Your task to perform on an android device: turn off airplane mode Image 0: 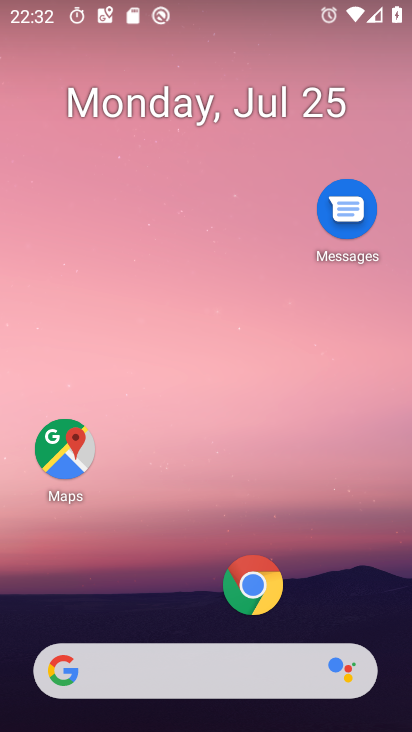
Step 0: press home button
Your task to perform on an android device: turn off airplane mode Image 1: 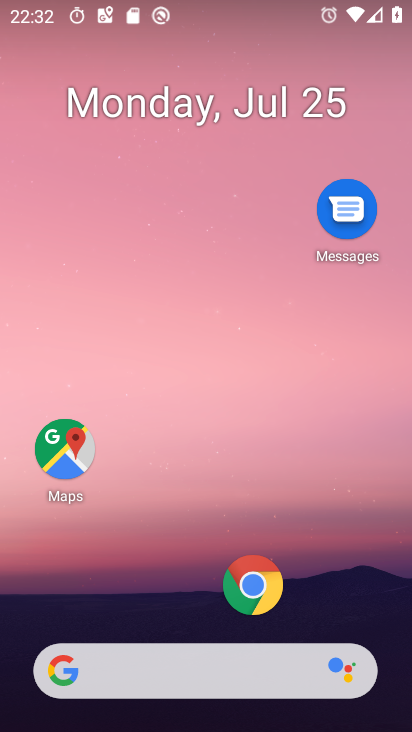
Step 1: drag from (154, 621) to (256, 51)
Your task to perform on an android device: turn off airplane mode Image 2: 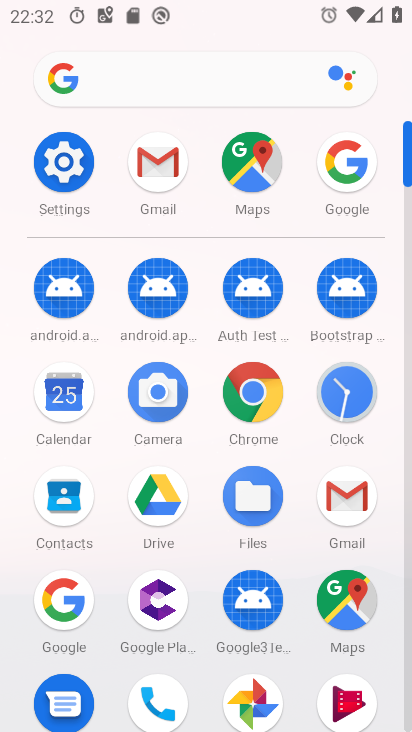
Step 2: click (55, 149)
Your task to perform on an android device: turn off airplane mode Image 3: 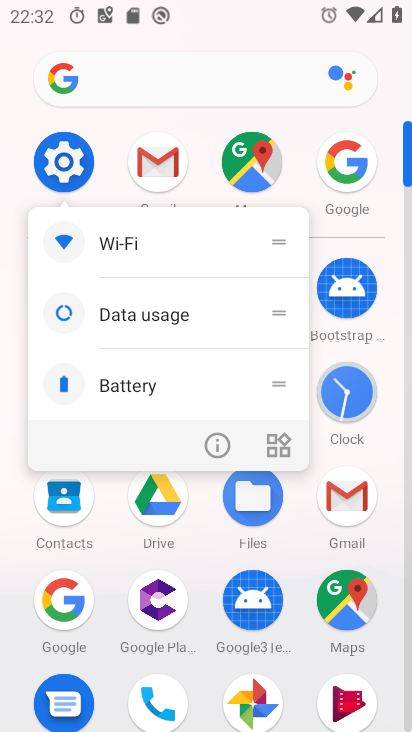
Step 3: click (46, 163)
Your task to perform on an android device: turn off airplane mode Image 4: 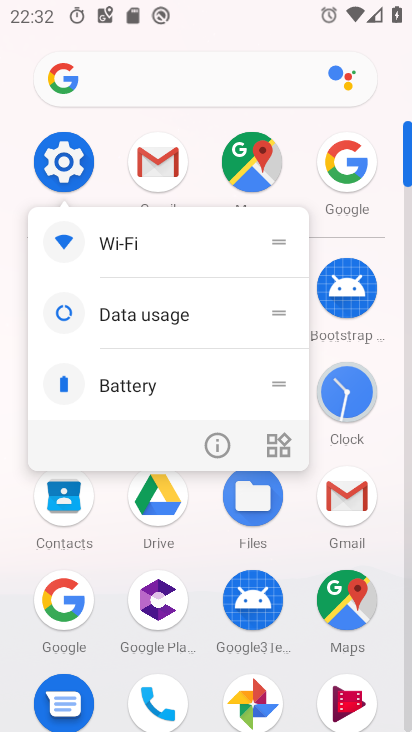
Step 4: click (61, 166)
Your task to perform on an android device: turn off airplane mode Image 5: 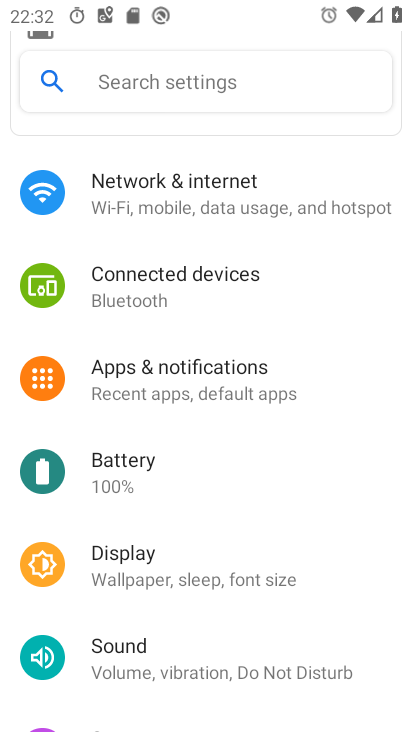
Step 5: drag from (307, 159) to (324, 530)
Your task to perform on an android device: turn off airplane mode Image 6: 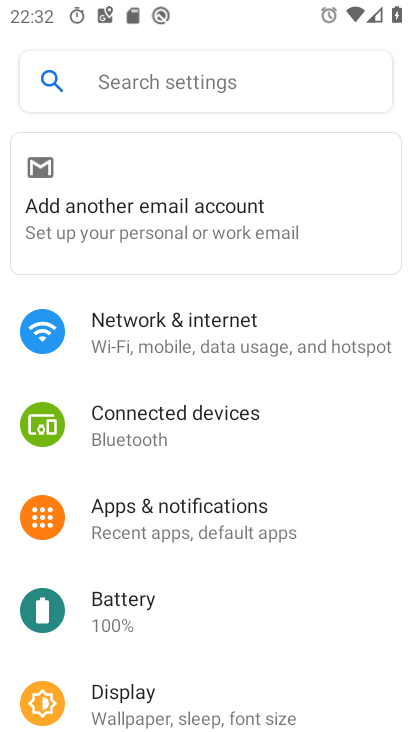
Step 6: click (211, 326)
Your task to perform on an android device: turn off airplane mode Image 7: 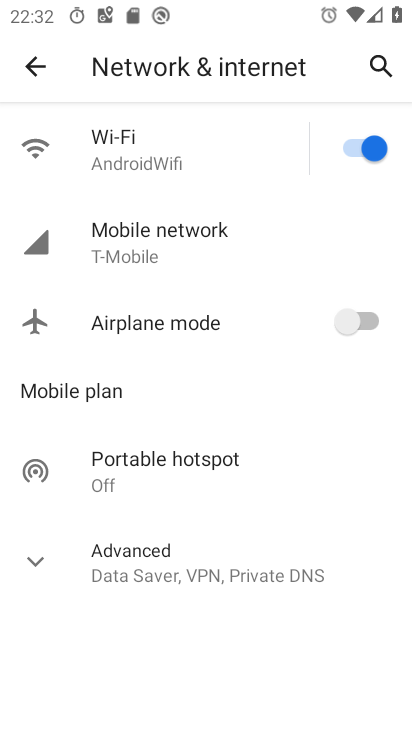
Step 7: task complete